Your task to perform on an android device: check battery use Image 0: 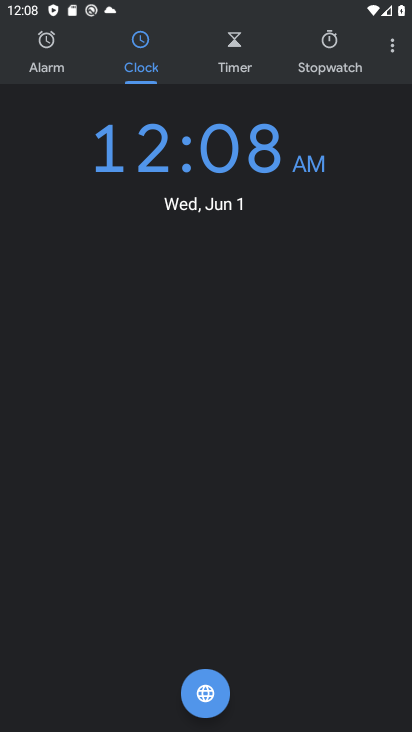
Step 0: press home button
Your task to perform on an android device: check battery use Image 1: 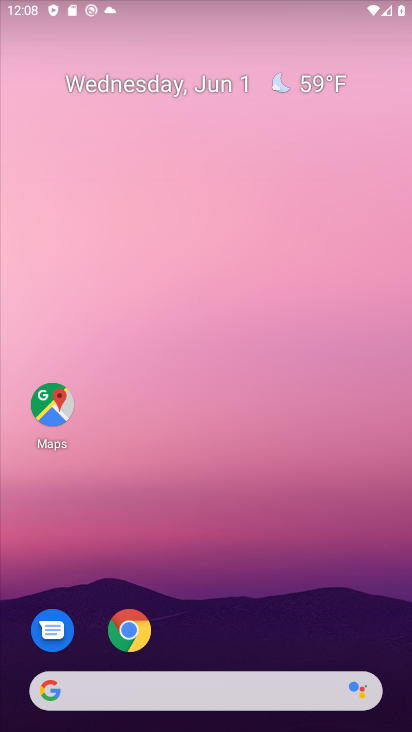
Step 1: drag from (192, 572) to (196, 243)
Your task to perform on an android device: check battery use Image 2: 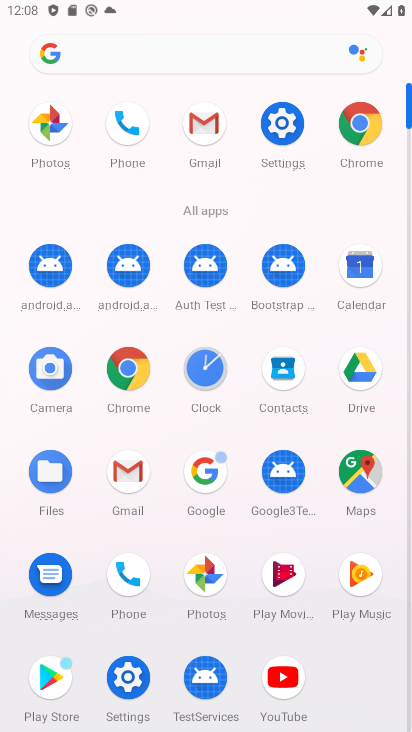
Step 2: click (122, 668)
Your task to perform on an android device: check battery use Image 3: 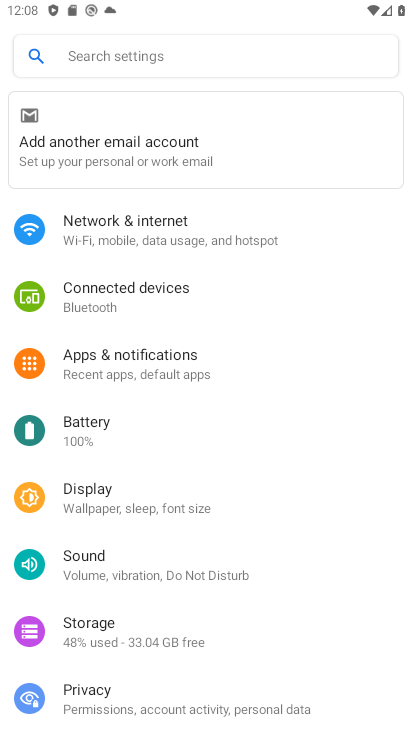
Step 3: click (99, 426)
Your task to perform on an android device: check battery use Image 4: 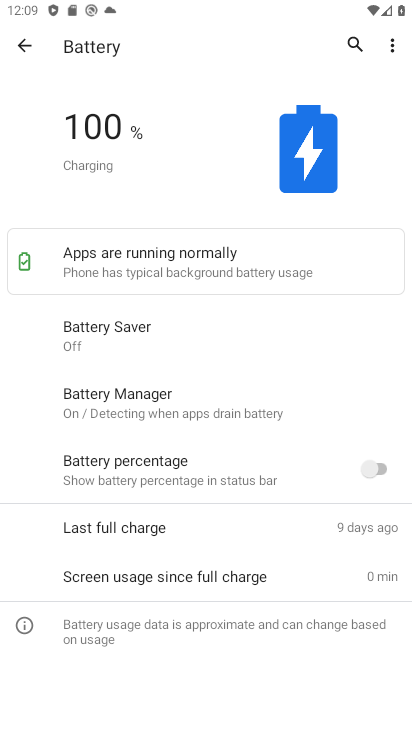
Step 4: task complete